Your task to perform on an android device: uninstall "Truecaller" Image 0: 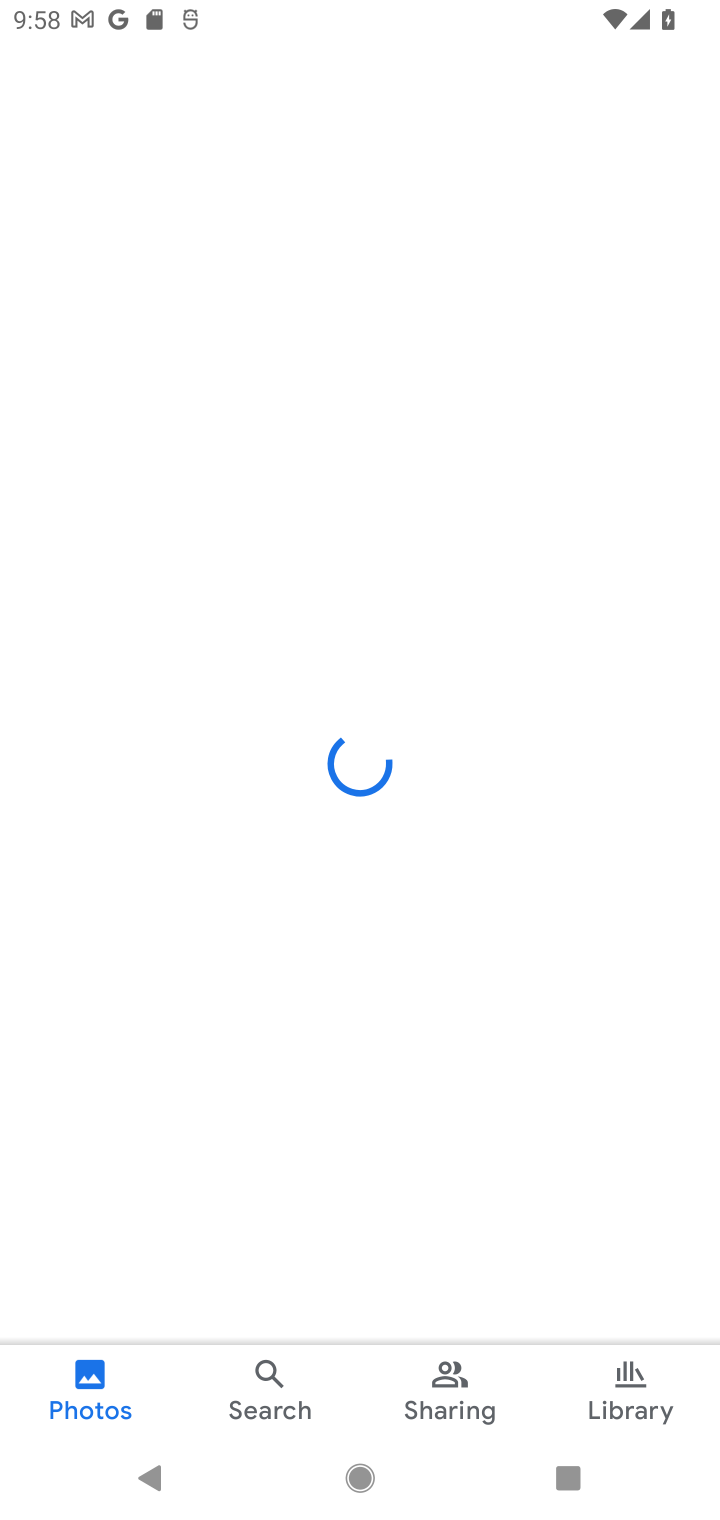
Step 0: press home button
Your task to perform on an android device: uninstall "Truecaller" Image 1: 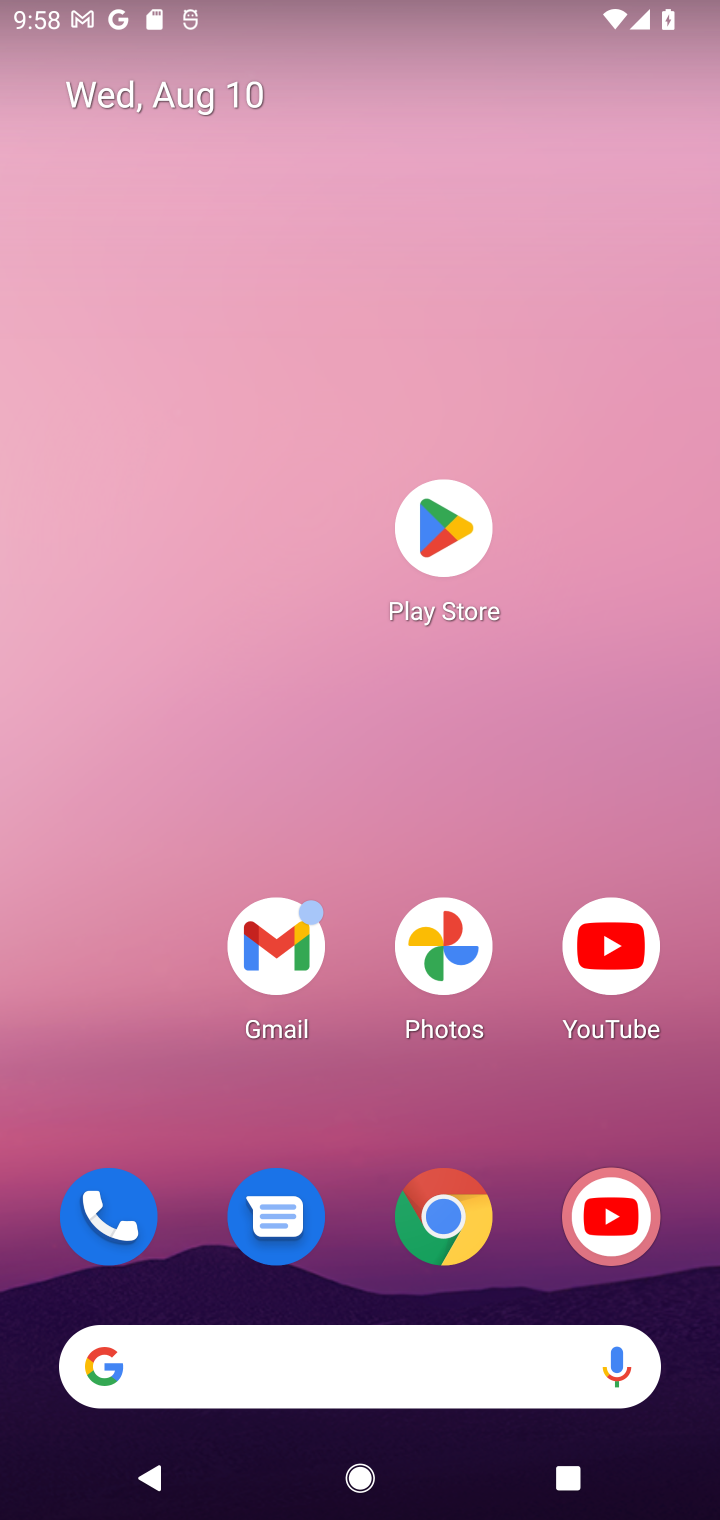
Step 1: click (443, 527)
Your task to perform on an android device: uninstall "Truecaller" Image 2: 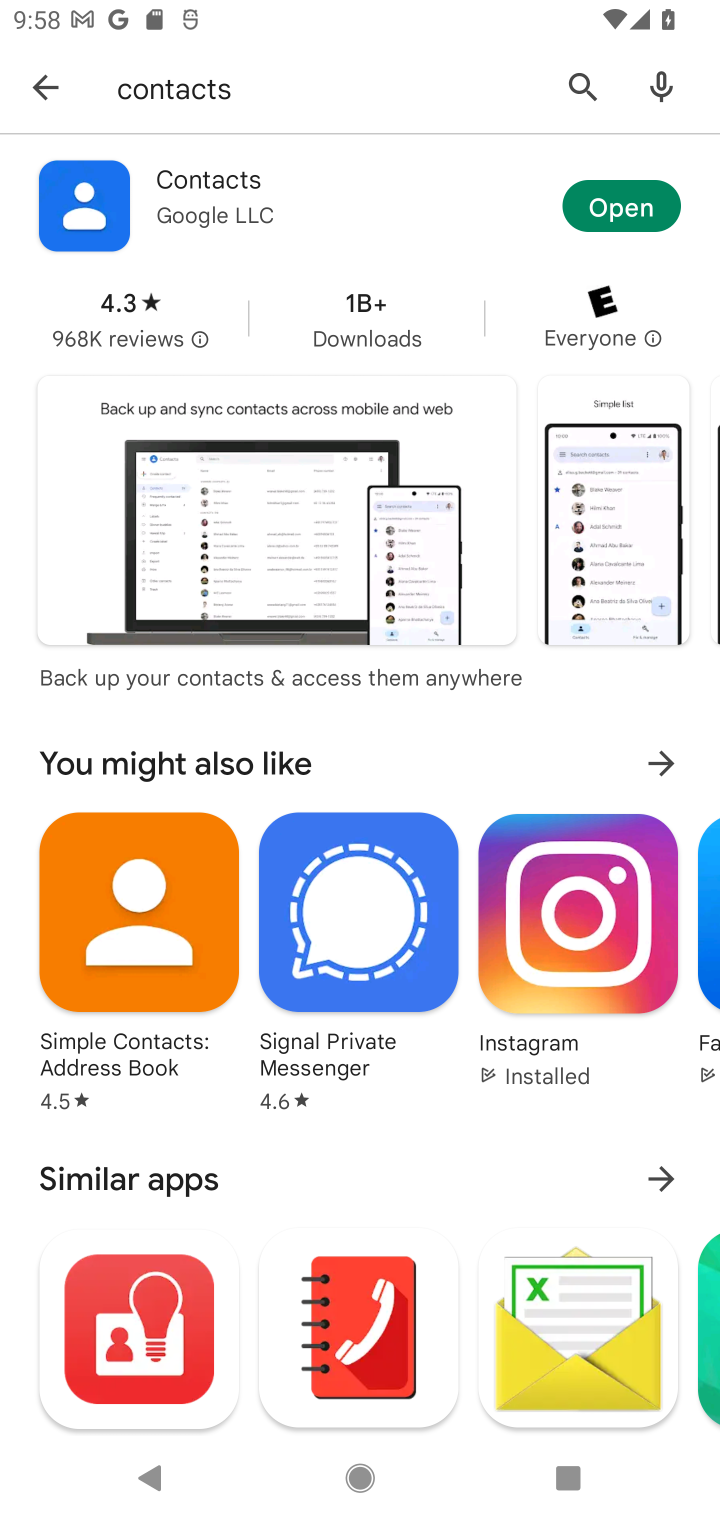
Step 2: click (576, 81)
Your task to perform on an android device: uninstall "Truecaller" Image 3: 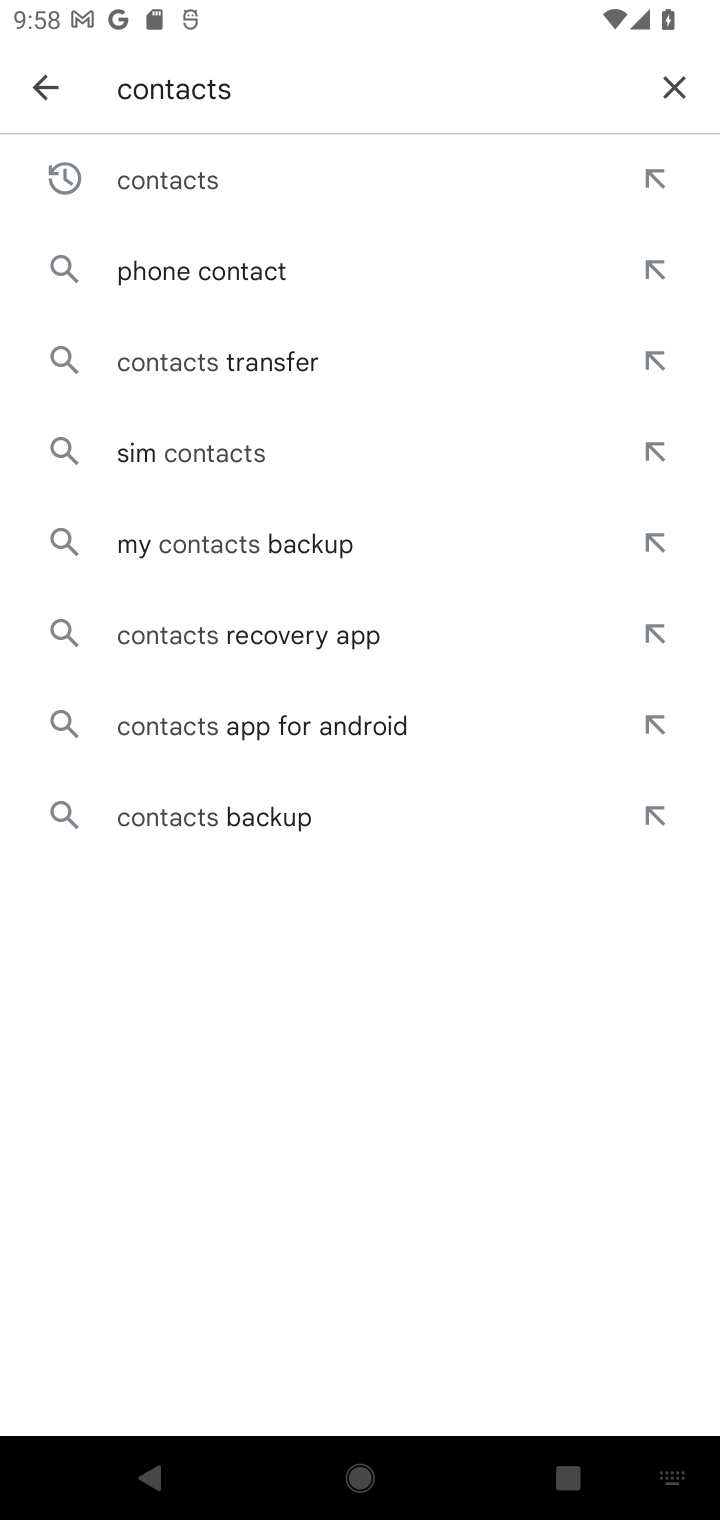
Step 3: click (674, 89)
Your task to perform on an android device: uninstall "Truecaller" Image 4: 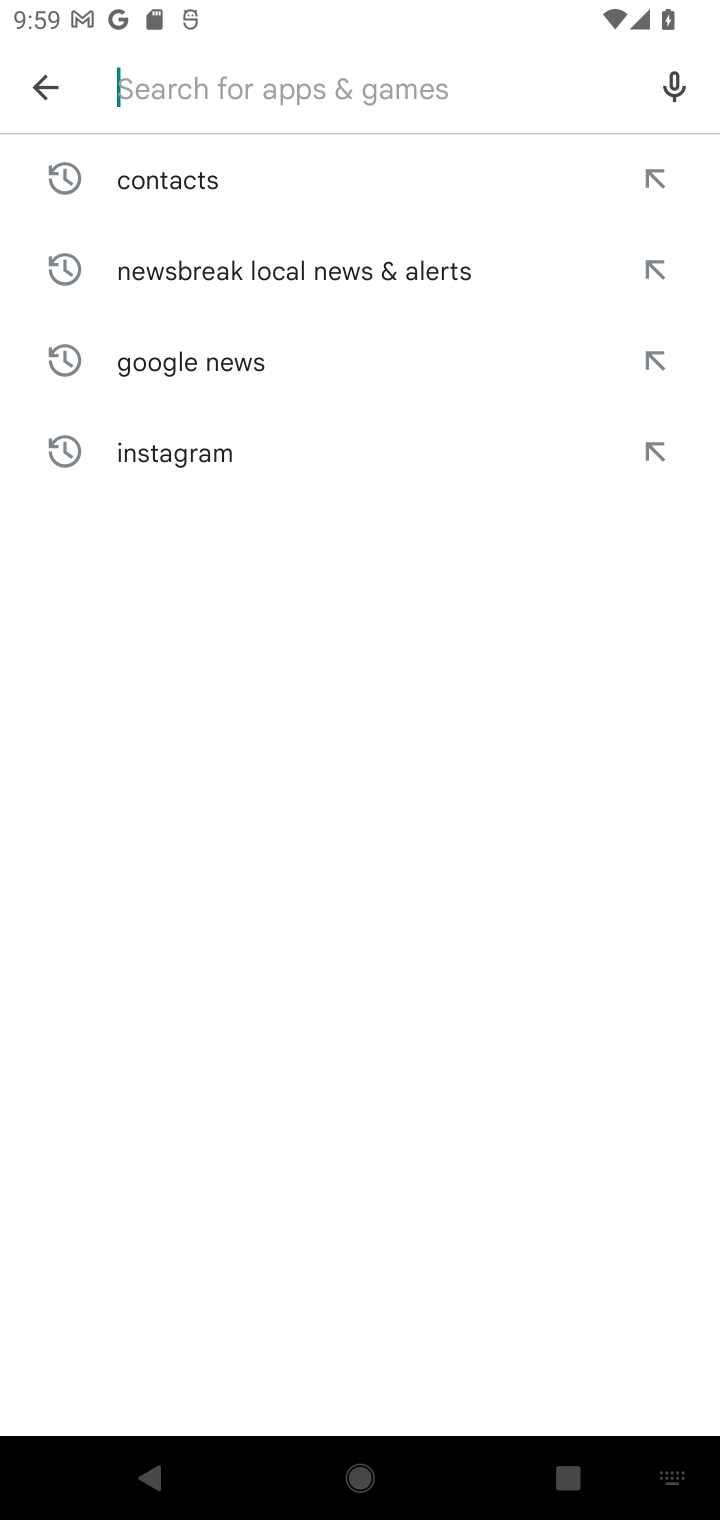
Step 4: type "Truecaller"
Your task to perform on an android device: uninstall "Truecaller" Image 5: 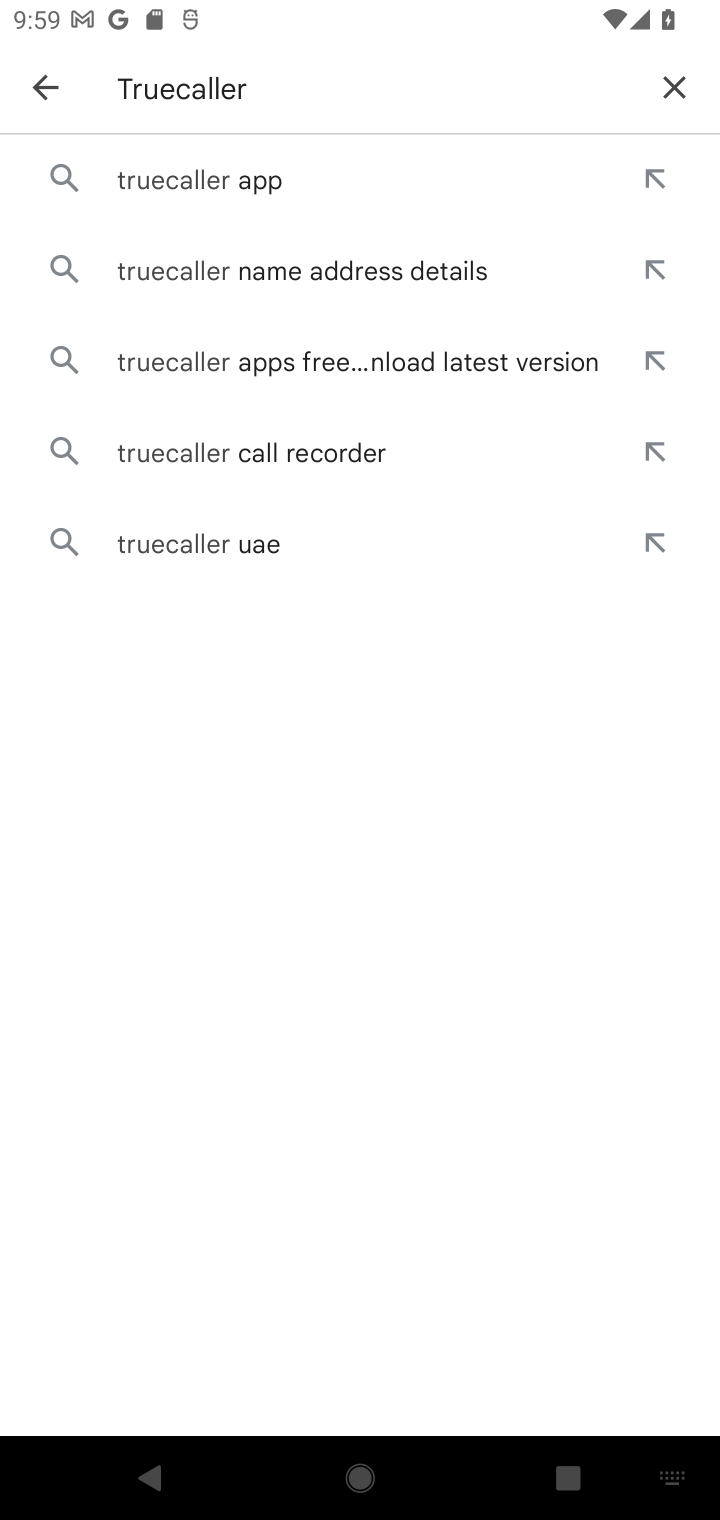
Step 5: click (228, 179)
Your task to perform on an android device: uninstall "Truecaller" Image 6: 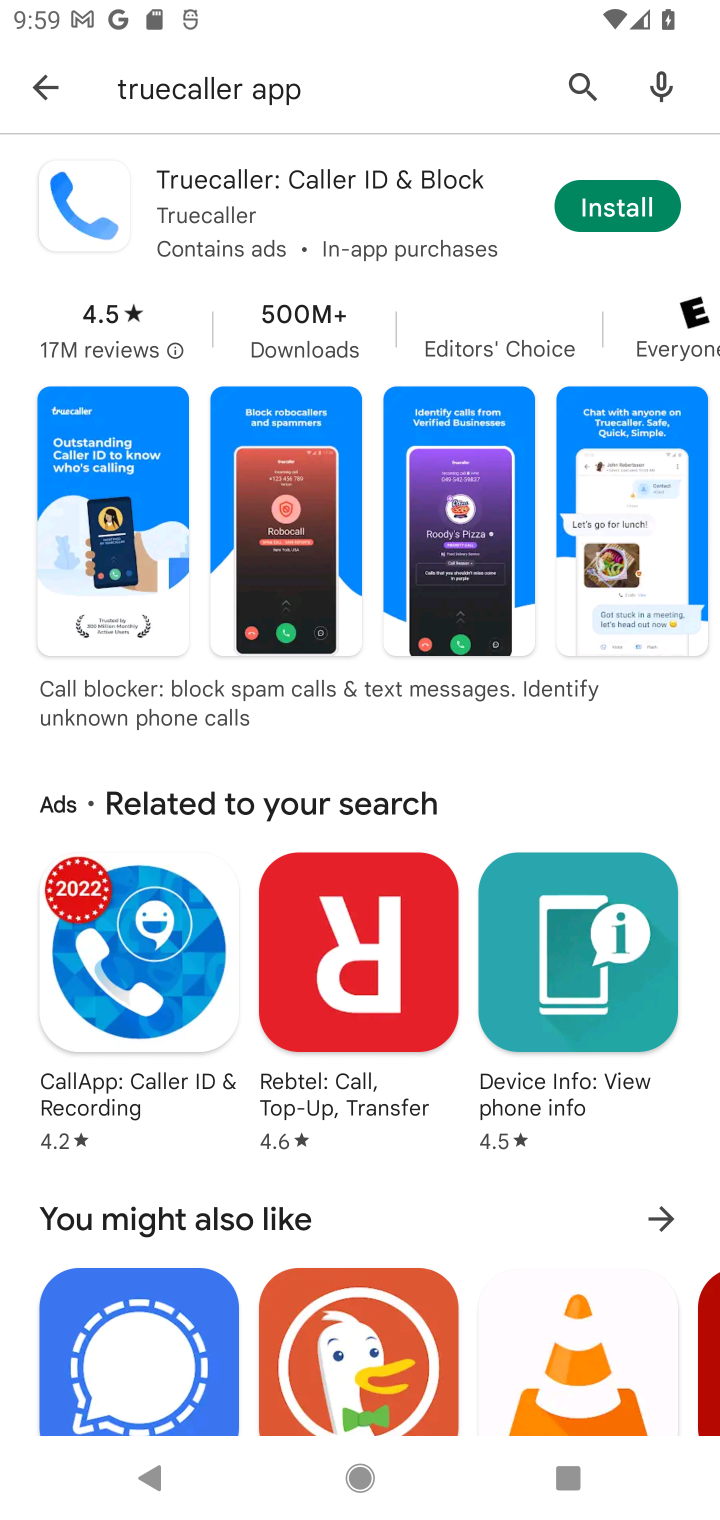
Step 6: task complete